Your task to perform on an android device: delete the emails in spam in the gmail app Image 0: 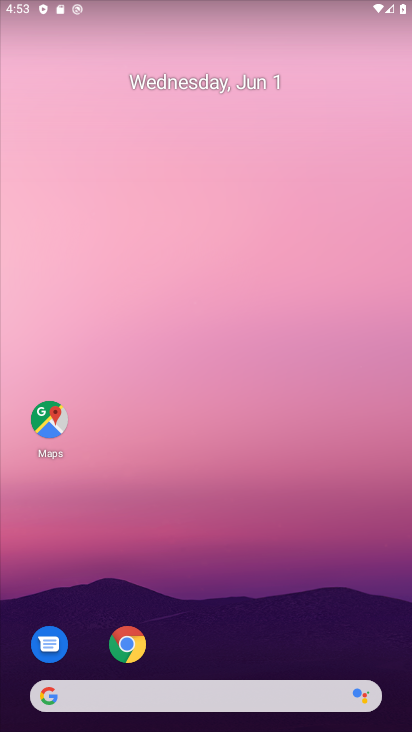
Step 0: drag from (255, 612) to (242, 36)
Your task to perform on an android device: delete the emails in spam in the gmail app Image 1: 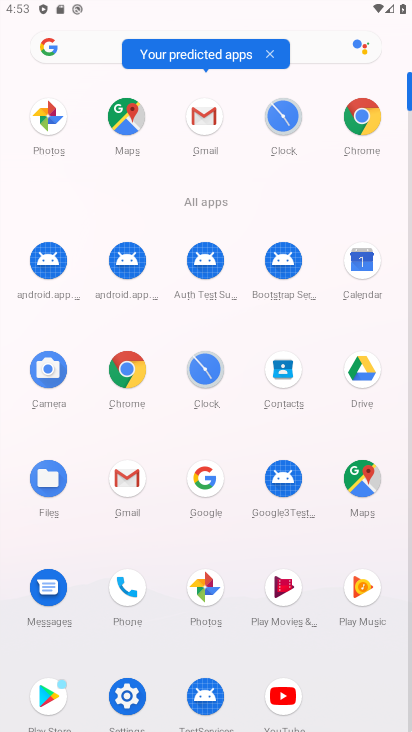
Step 1: click (116, 482)
Your task to perform on an android device: delete the emails in spam in the gmail app Image 2: 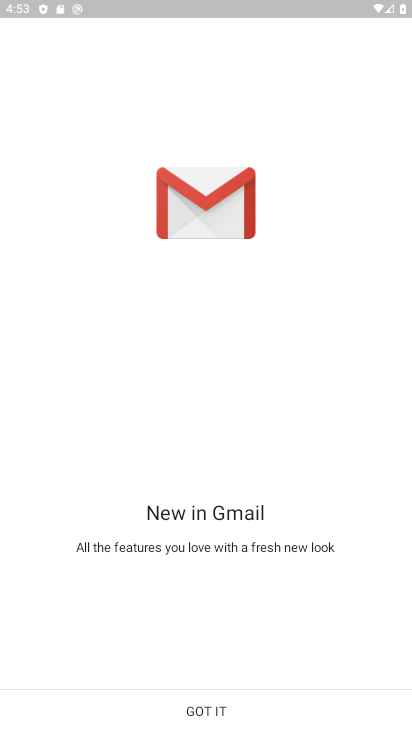
Step 2: click (261, 706)
Your task to perform on an android device: delete the emails in spam in the gmail app Image 3: 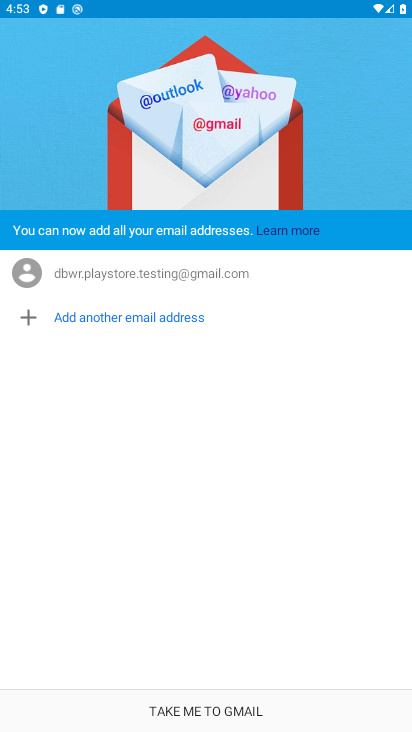
Step 3: click (261, 703)
Your task to perform on an android device: delete the emails in spam in the gmail app Image 4: 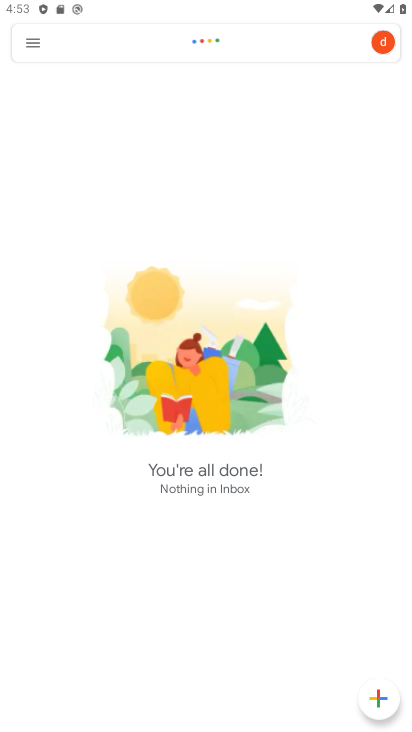
Step 4: click (31, 46)
Your task to perform on an android device: delete the emails in spam in the gmail app Image 5: 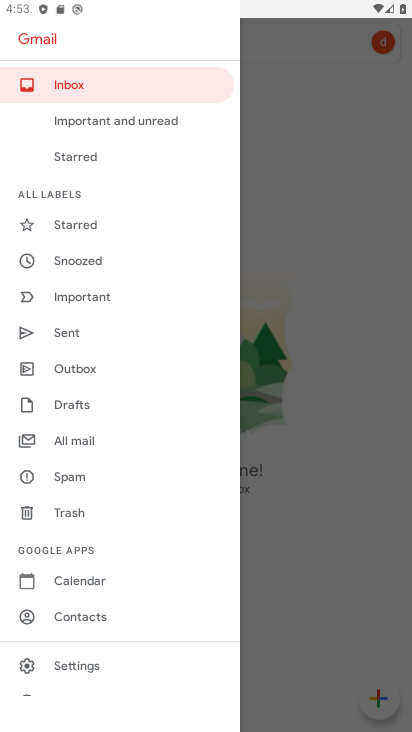
Step 5: click (66, 479)
Your task to perform on an android device: delete the emails in spam in the gmail app Image 6: 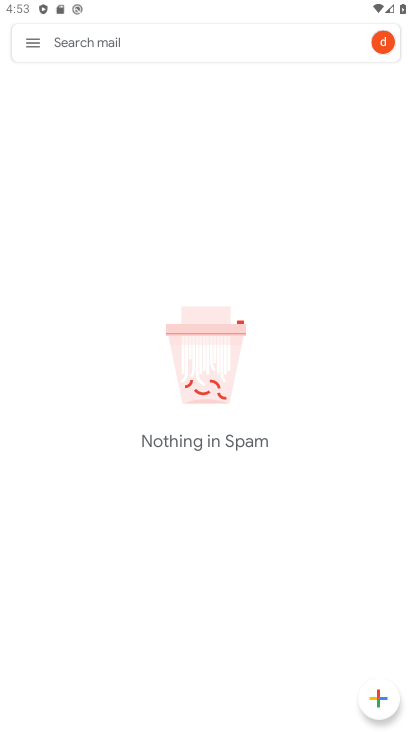
Step 6: task complete